Your task to perform on an android device: Turn off the flashlight Image 0: 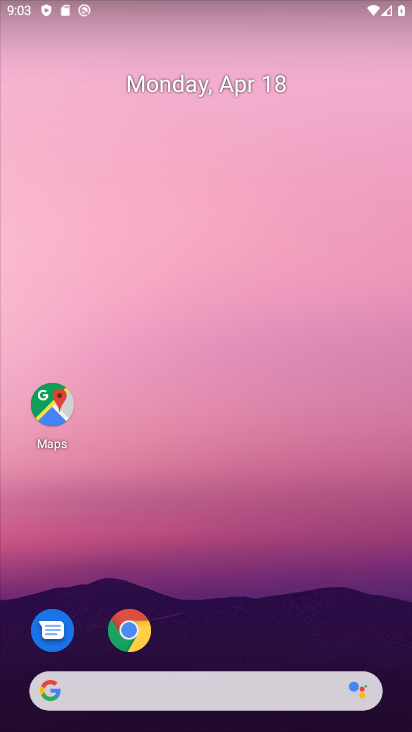
Step 0: drag from (244, 621) to (240, 101)
Your task to perform on an android device: Turn off the flashlight Image 1: 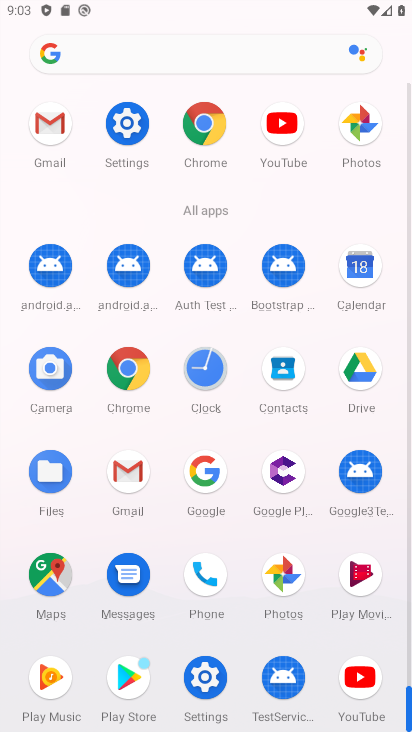
Step 1: click (132, 127)
Your task to perform on an android device: Turn off the flashlight Image 2: 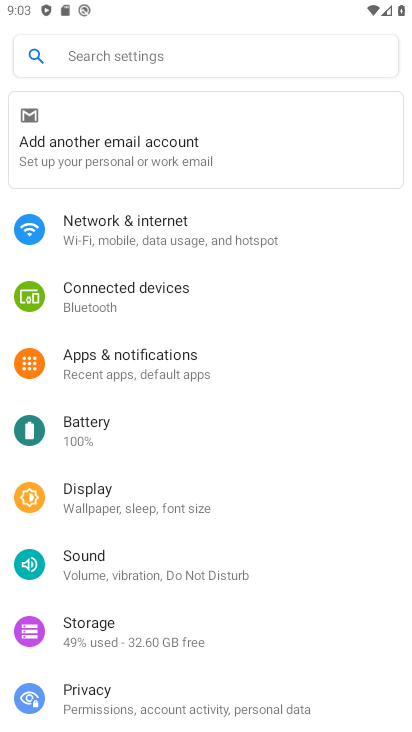
Step 2: click (190, 44)
Your task to perform on an android device: Turn off the flashlight Image 3: 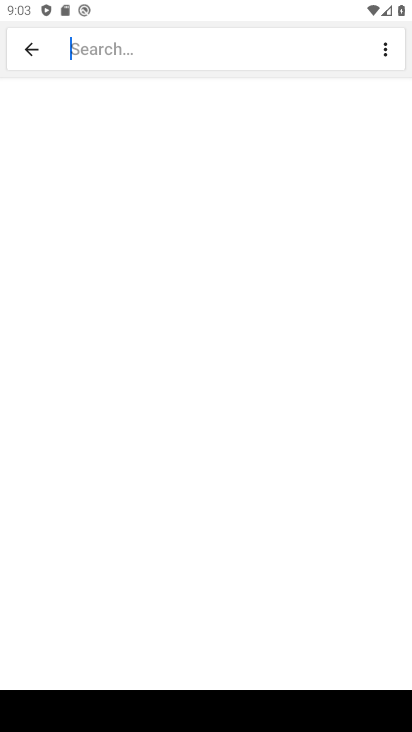
Step 3: type "flashlight"
Your task to perform on an android device: Turn off the flashlight Image 4: 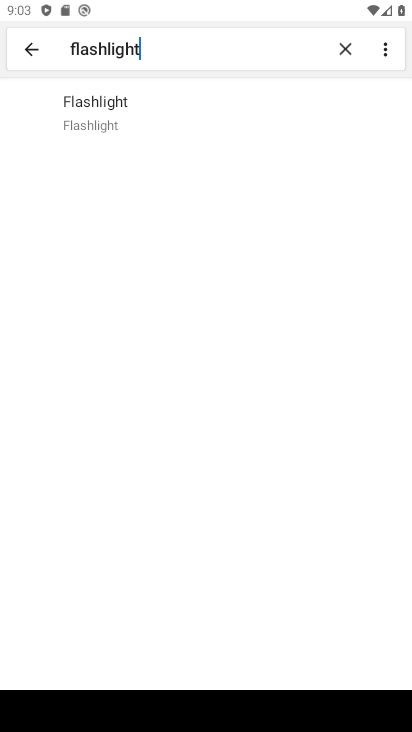
Step 4: click (112, 112)
Your task to perform on an android device: Turn off the flashlight Image 5: 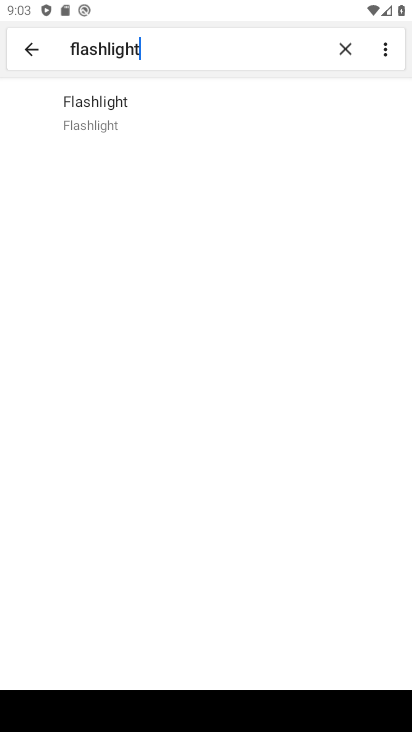
Step 5: task complete